Your task to perform on an android device: check storage Image 0: 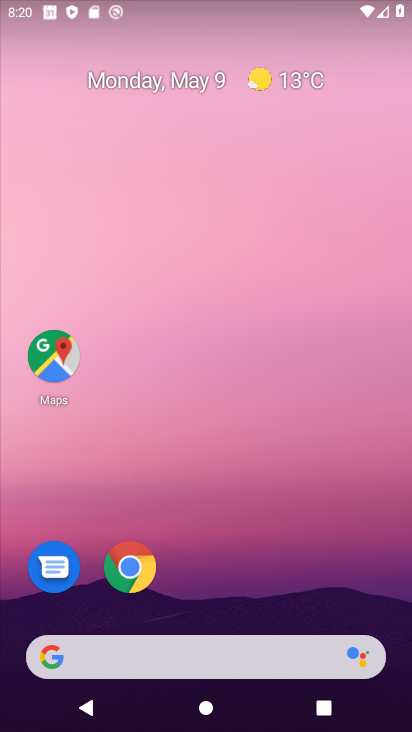
Step 0: drag from (224, 554) to (257, 19)
Your task to perform on an android device: check storage Image 1: 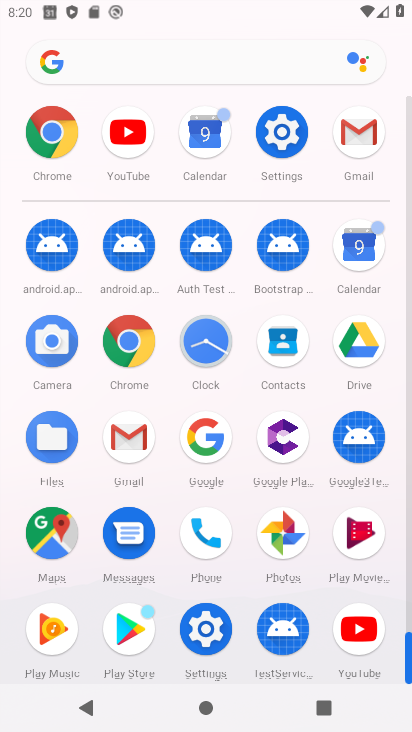
Step 1: click (282, 129)
Your task to perform on an android device: check storage Image 2: 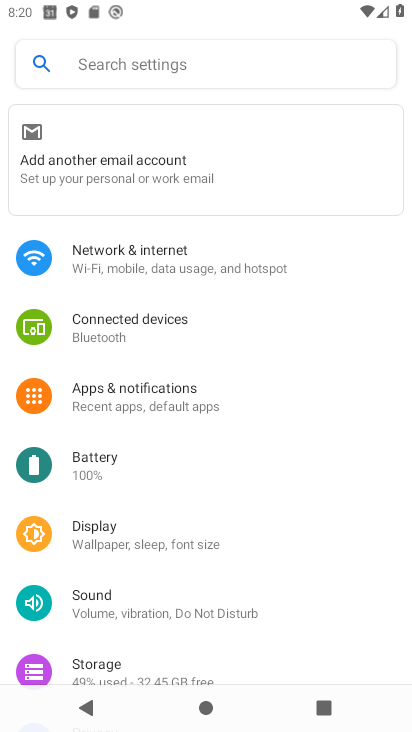
Step 2: drag from (176, 589) to (195, 399)
Your task to perform on an android device: check storage Image 3: 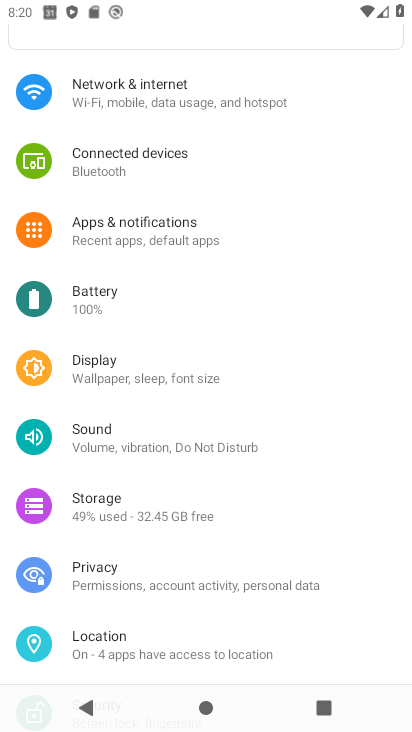
Step 3: click (179, 508)
Your task to perform on an android device: check storage Image 4: 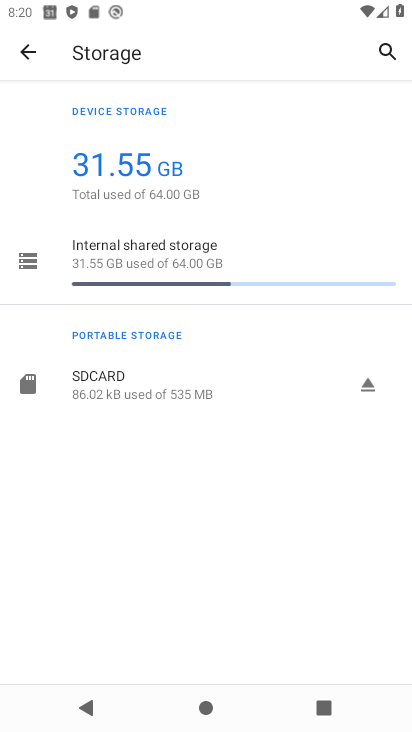
Step 4: task complete